Your task to perform on an android device: Open maps Image 0: 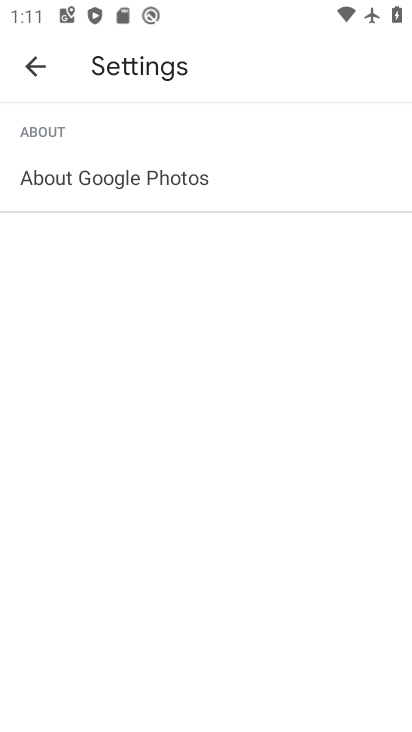
Step 0: press home button
Your task to perform on an android device: Open maps Image 1: 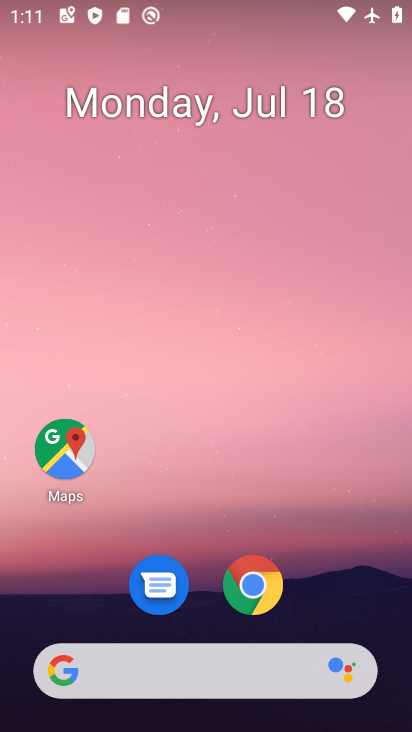
Step 1: click (70, 458)
Your task to perform on an android device: Open maps Image 2: 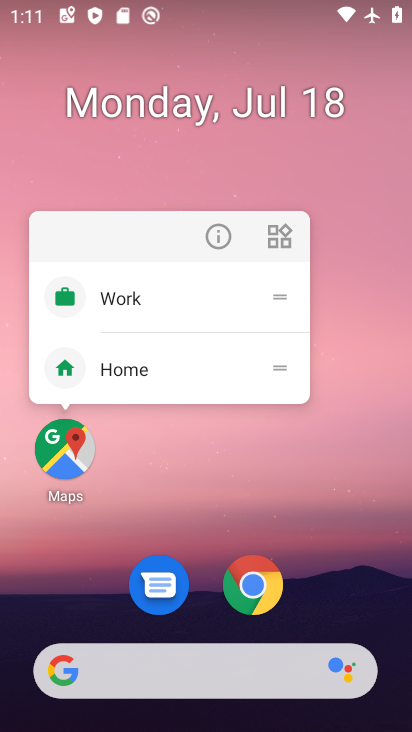
Step 2: click (66, 461)
Your task to perform on an android device: Open maps Image 3: 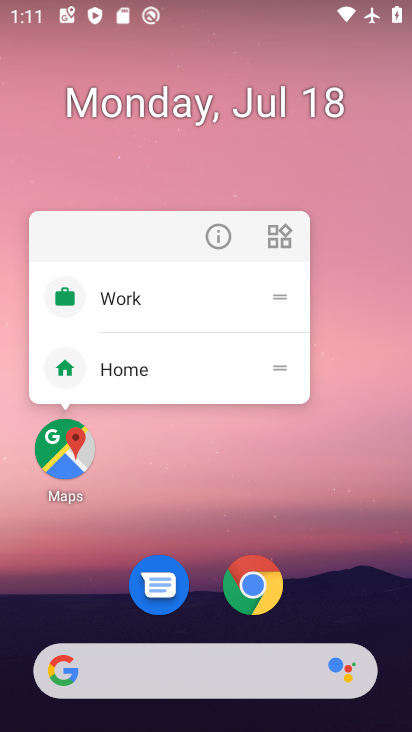
Step 3: click (66, 464)
Your task to perform on an android device: Open maps Image 4: 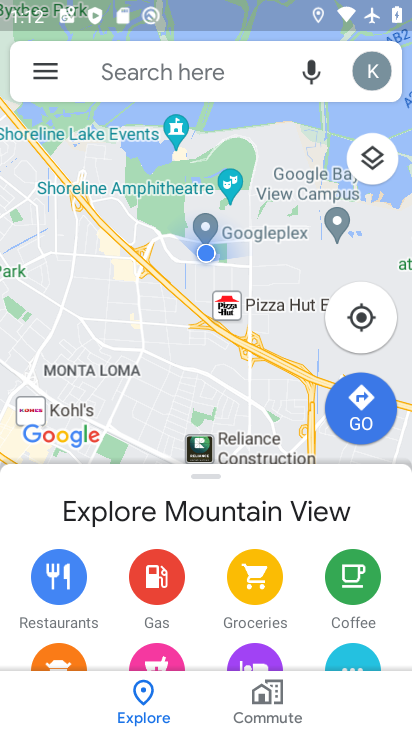
Step 4: task complete